Your task to perform on an android device: toggle priority inbox in the gmail app Image 0: 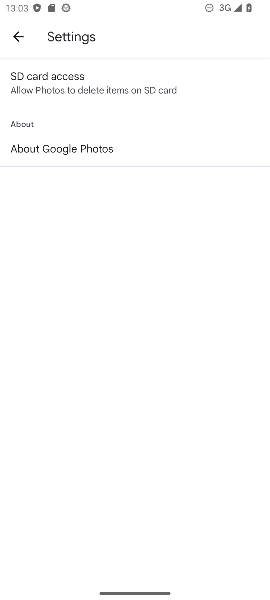
Step 0: press back button
Your task to perform on an android device: toggle priority inbox in the gmail app Image 1: 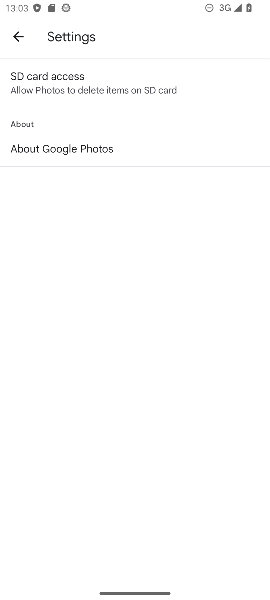
Step 1: press home button
Your task to perform on an android device: toggle priority inbox in the gmail app Image 2: 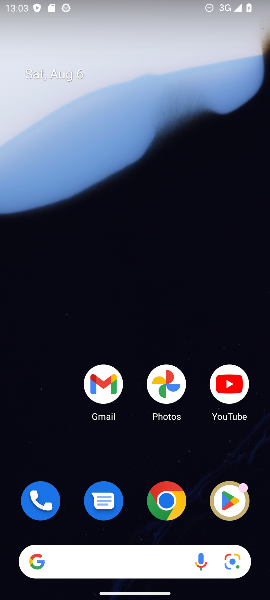
Step 2: click (96, 388)
Your task to perform on an android device: toggle priority inbox in the gmail app Image 3: 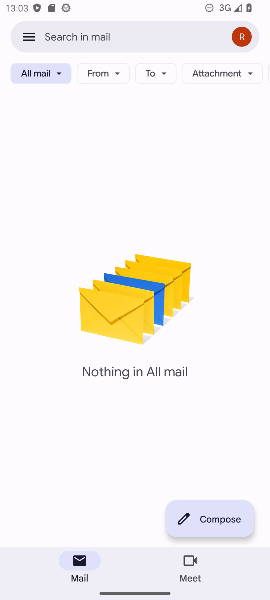
Step 3: click (31, 32)
Your task to perform on an android device: toggle priority inbox in the gmail app Image 4: 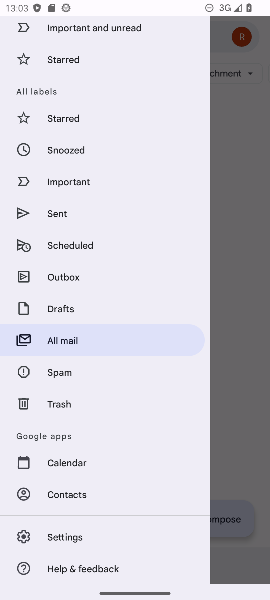
Step 4: click (56, 537)
Your task to perform on an android device: toggle priority inbox in the gmail app Image 5: 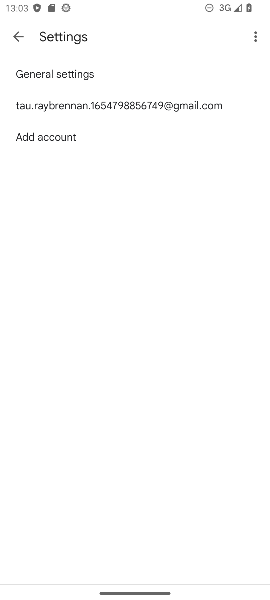
Step 5: click (115, 104)
Your task to perform on an android device: toggle priority inbox in the gmail app Image 6: 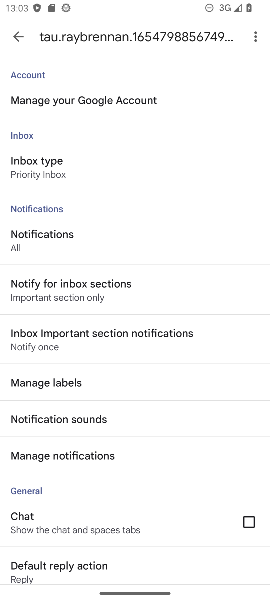
Step 6: click (21, 181)
Your task to perform on an android device: toggle priority inbox in the gmail app Image 7: 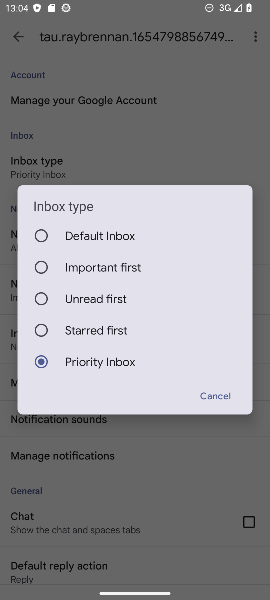
Step 7: click (37, 230)
Your task to perform on an android device: toggle priority inbox in the gmail app Image 8: 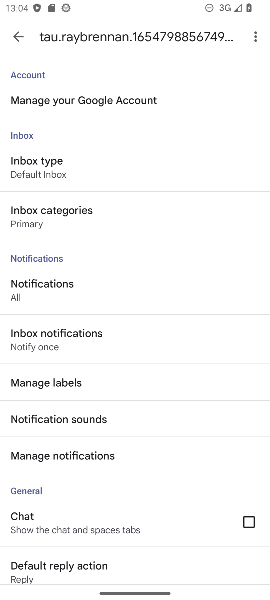
Step 8: click (36, 237)
Your task to perform on an android device: toggle priority inbox in the gmail app Image 9: 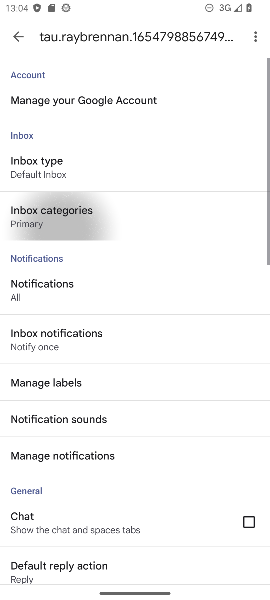
Step 9: click (44, 237)
Your task to perform on an android device: toggle priority inbox in the gmail app Image 10: 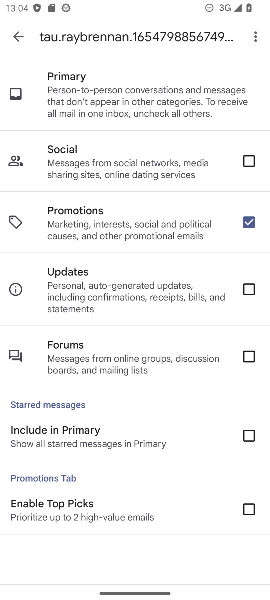
Step 10: click (17, 39)
Your task to perform on an android device: toggle priority inbox in the gmail app Image 11: 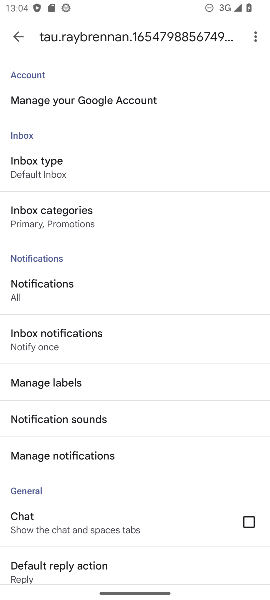
Step 11: click (30, 160)
Your task to perform on an android device: toggle priority inbox in the gmail app Image 12: 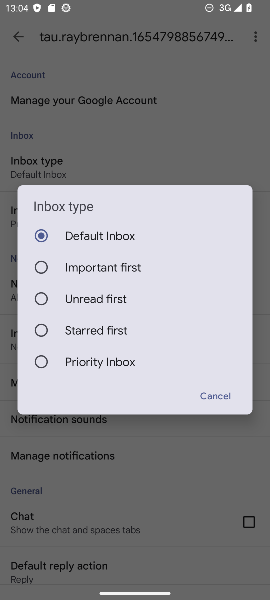
Step 12: task complete